Your task to perform on an android device: Turn off the flashlight Image 0: 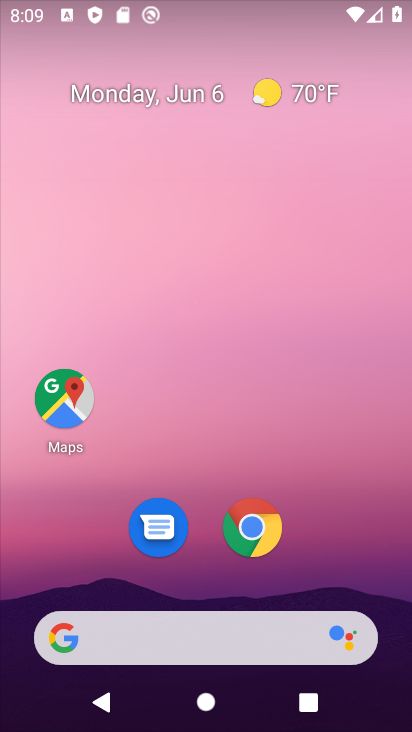
Step 0: drag from (271, 59) to (217, 480)
Your task to perform on an android device: Turn off the flashlight Image 1: 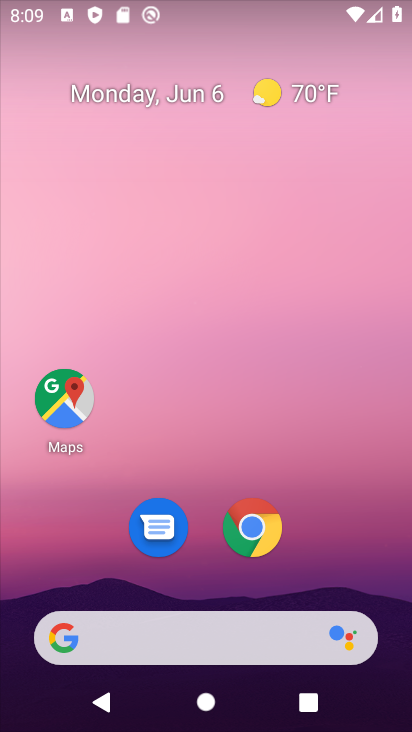
Step 1: task complete